Your task to perform on an android device: open app "The Home Depot" (install if not already installed), go to login, and select forgot password Image 0: 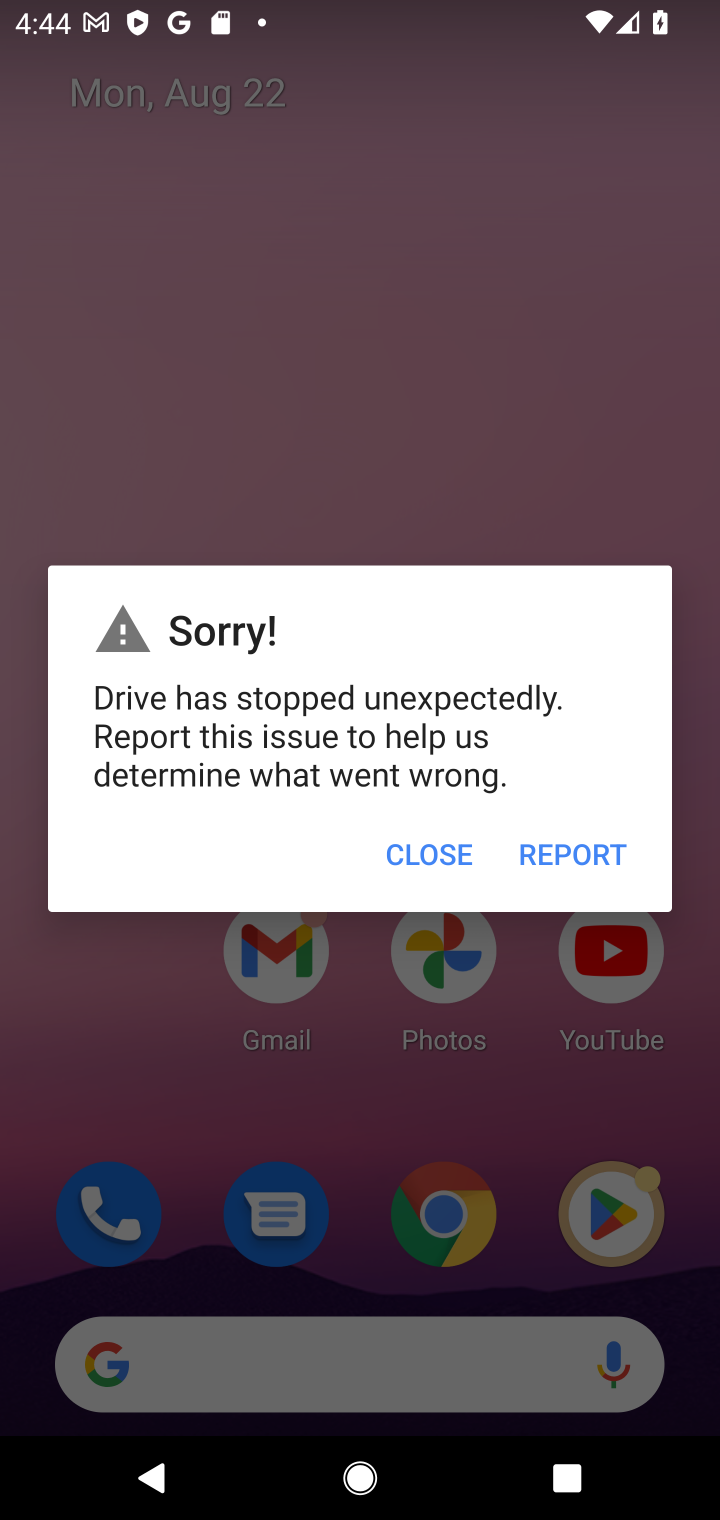
Step 0: press home button
Your task to perform on an android device: open app "The Home Depot" (install if not already installed), go to login, and select forgot password Image 1: 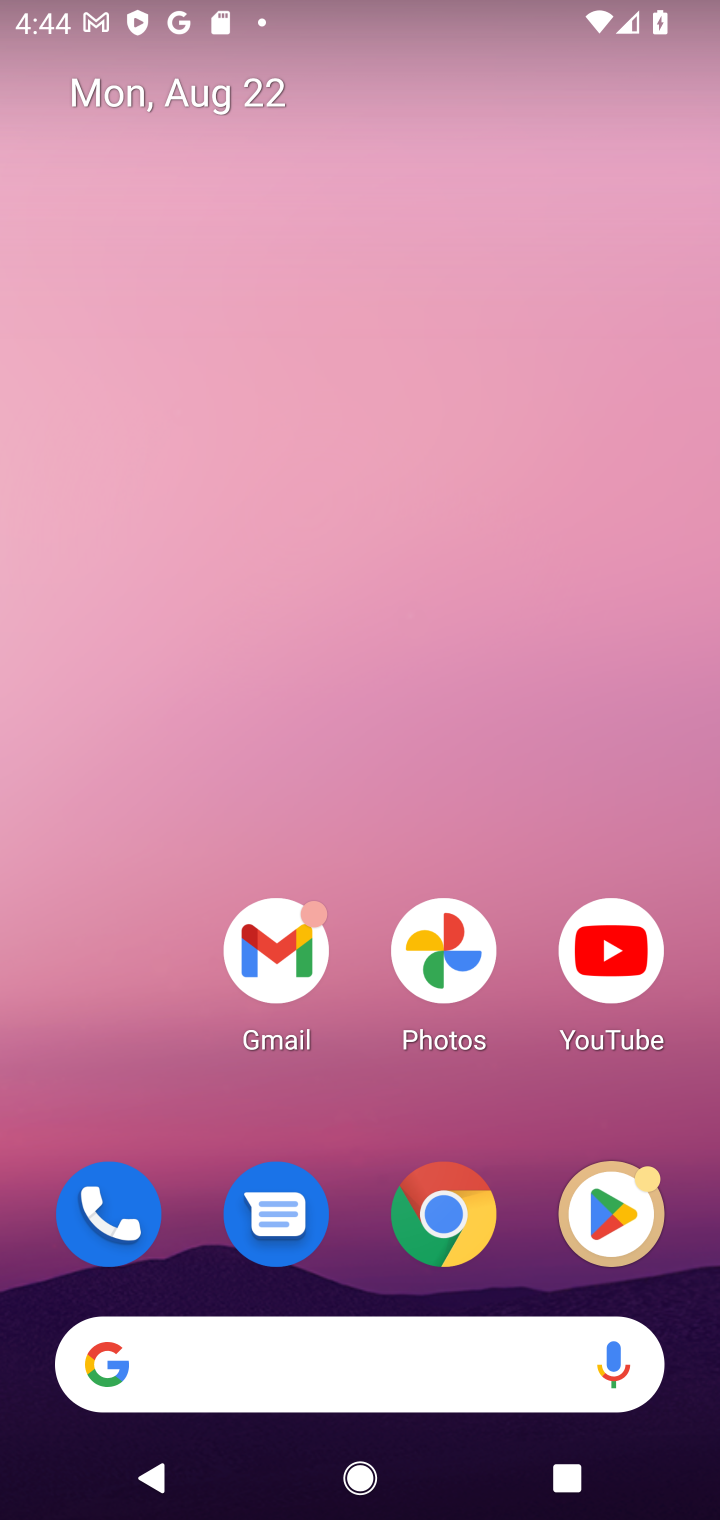
Step 1: click (621, 1212)
Your task to perform on an android device: open app "The Home Depot" (install if not already installed), go to login, and select forgot password Image 2: 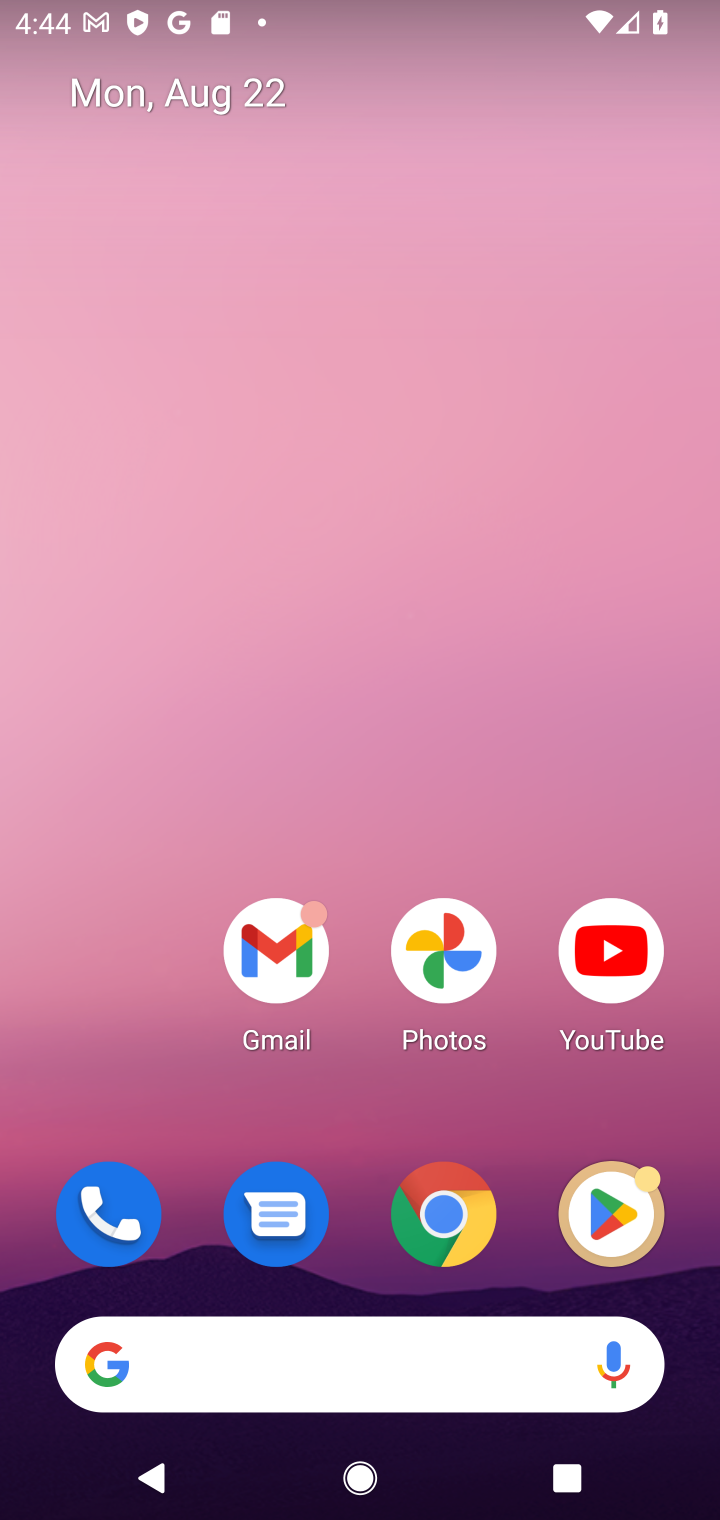
Step 2: click (605, 1215)
Your task to perform on an android device: open app "The Home Depot" (install if not already installed), go to login, and select forgot password Image 3: 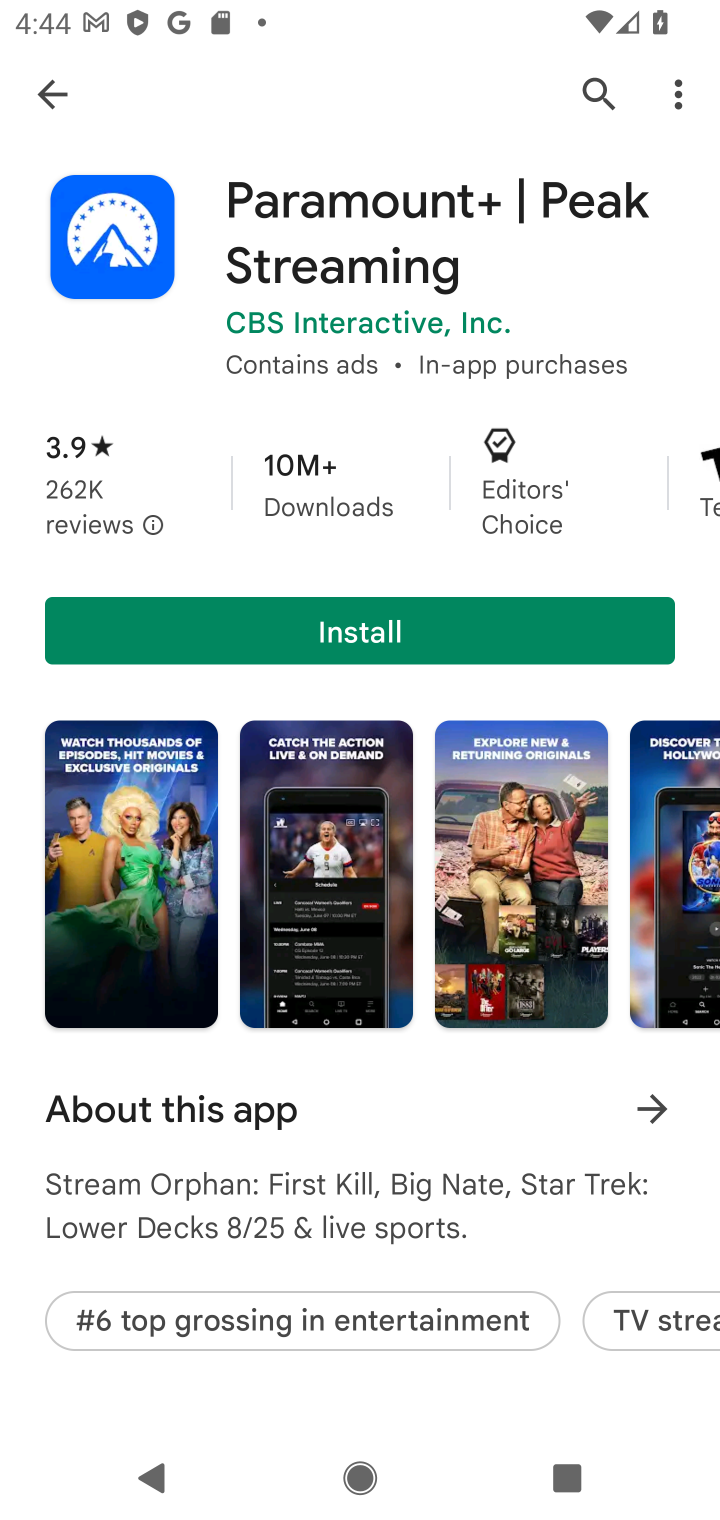
Step 3: click (593, 95)
Your task to perform on an android device: open app "The Home Depot" (install if not already installed), go to login, and select forgot password Image 4: 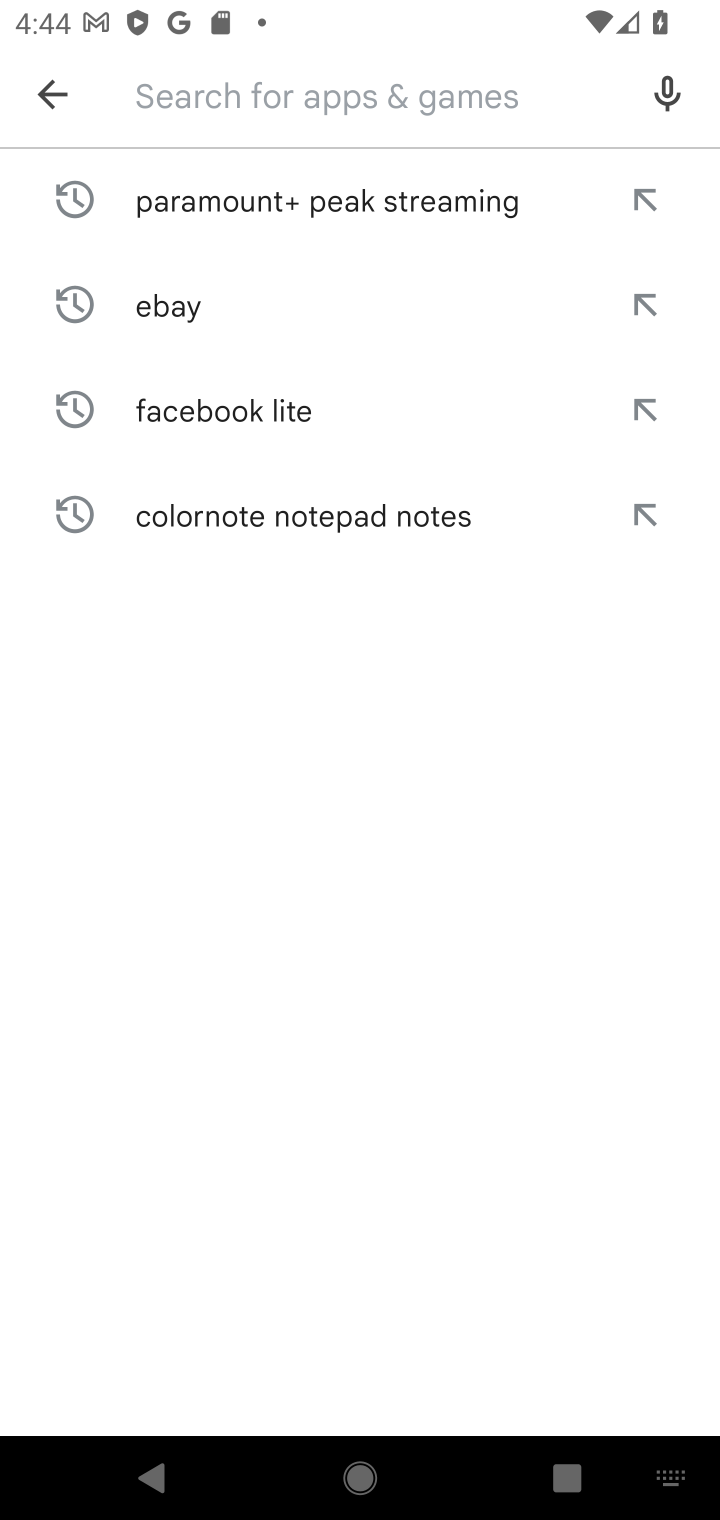
Step 4: type "the home depot"
Your task to perform on an android device: open app "The Home Depot" (install if not already installed), go to login, and select forgot password Image 5: 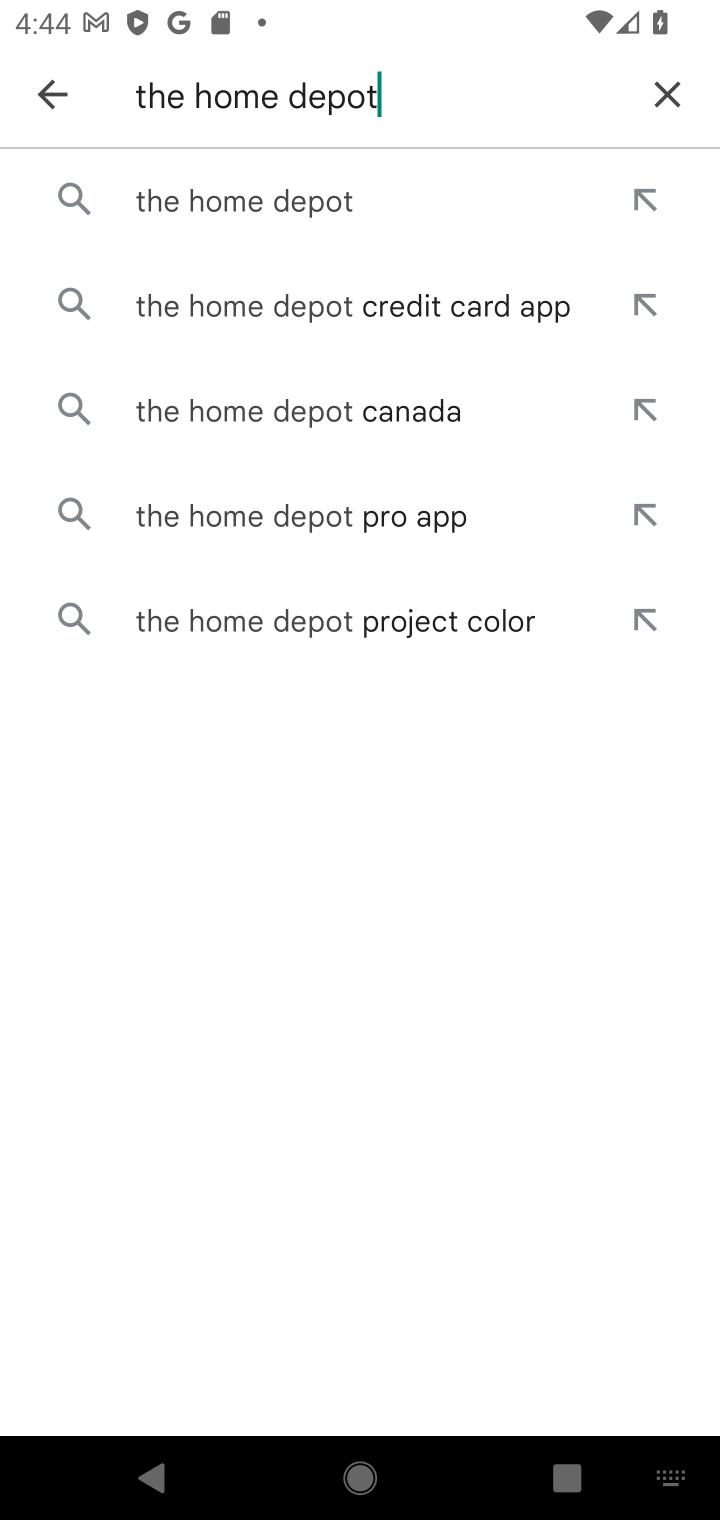
Step 5: click (234, 208)
Your task to perform on an android device: open app "The Home Depot" (install if not already installed), go to login, and select forgot password Image 6: 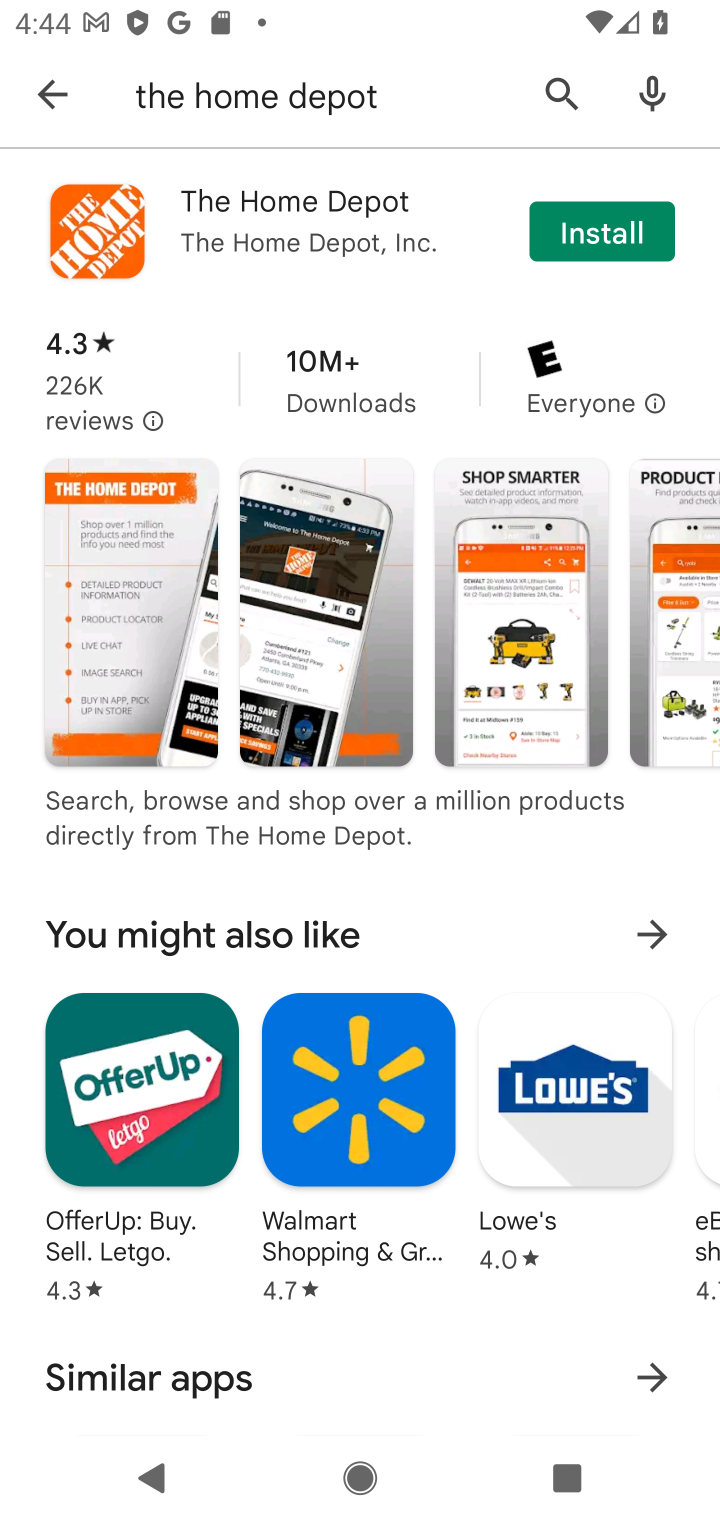
Step 6: click (586, 225)
Your task to perform on an android device: open app "The Home Depot" (install if not already installed), go to login, and select forgot password Image 7: 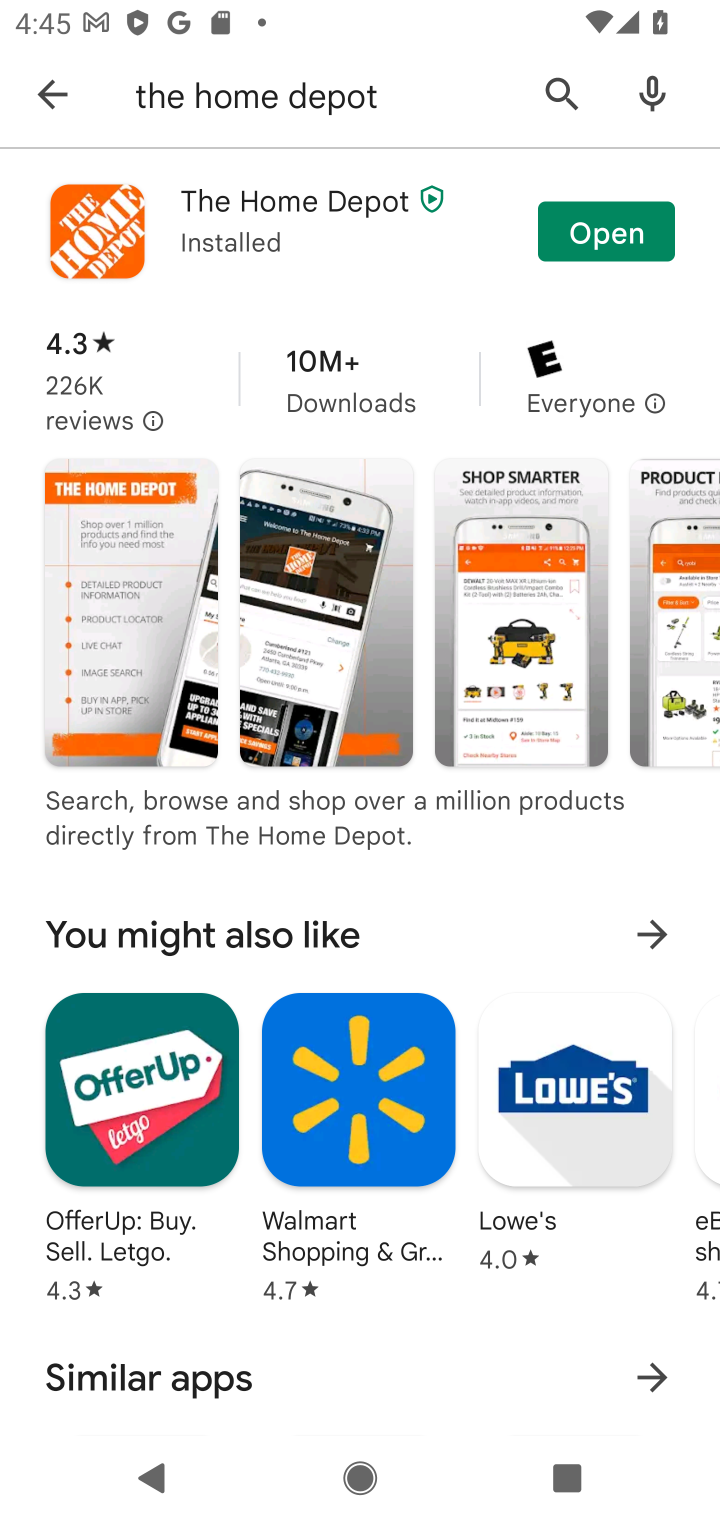
Step 7: click (591, 222)
Your task to perform on an android device: open app "The Home Depot" (install if not already installed), go to login, and select forgot password Image 8: 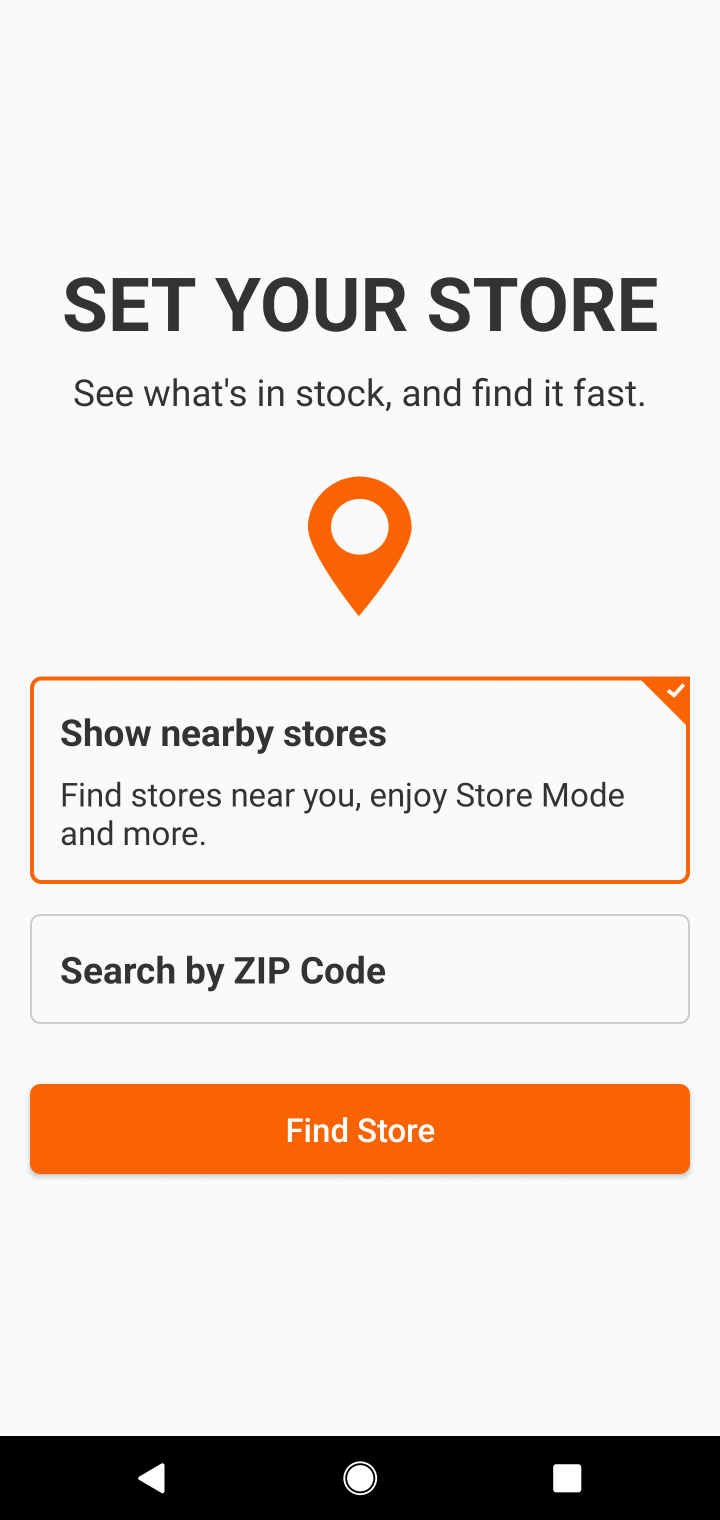
Step 8: click (333, 1128)
Your task to perform on an android device: open app "The Home Depot" (install if not already installed), go to login, and select forgot password Image 9: 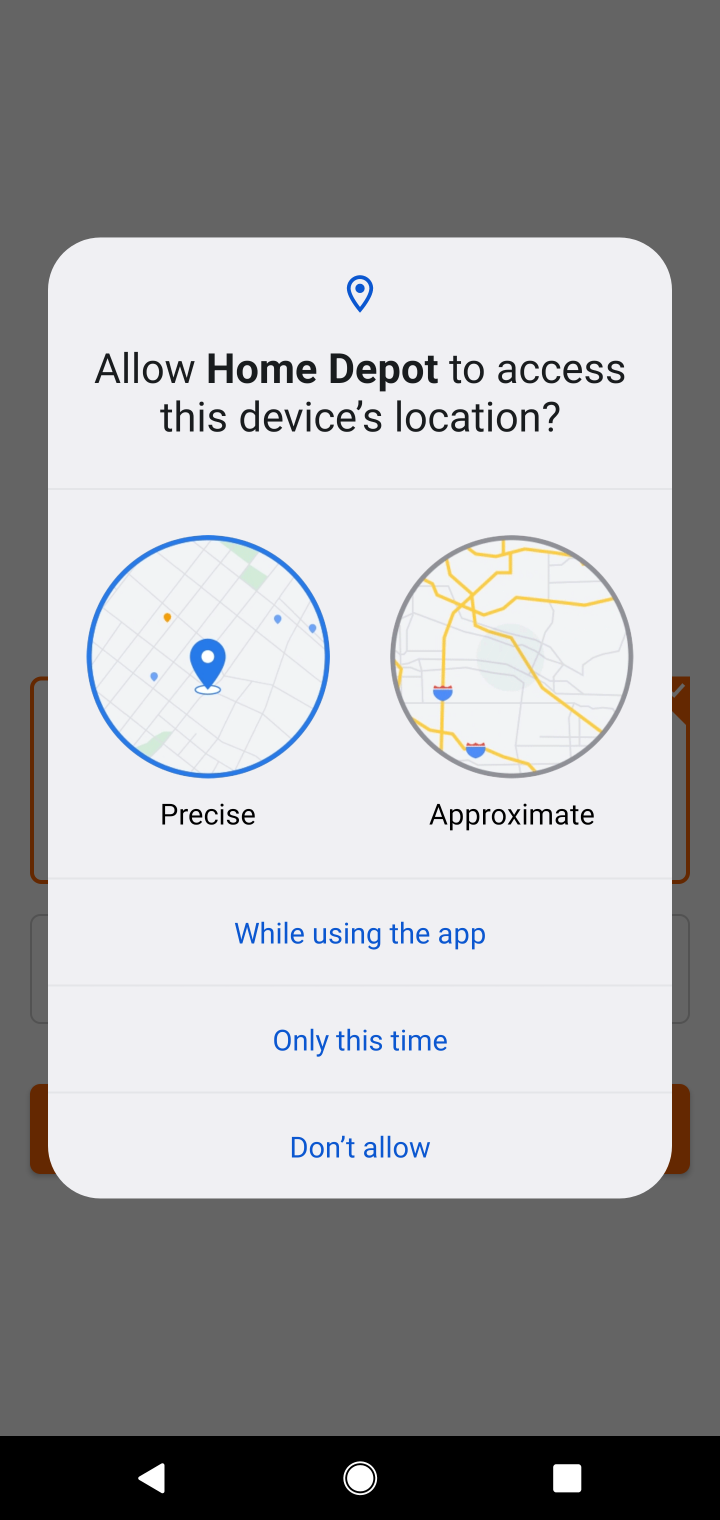
Step 9: click (309, 945)
Your task to perform on an android device: open app "The Home Depot" (install if not already installed), go to login, and select forgot password Image 10: 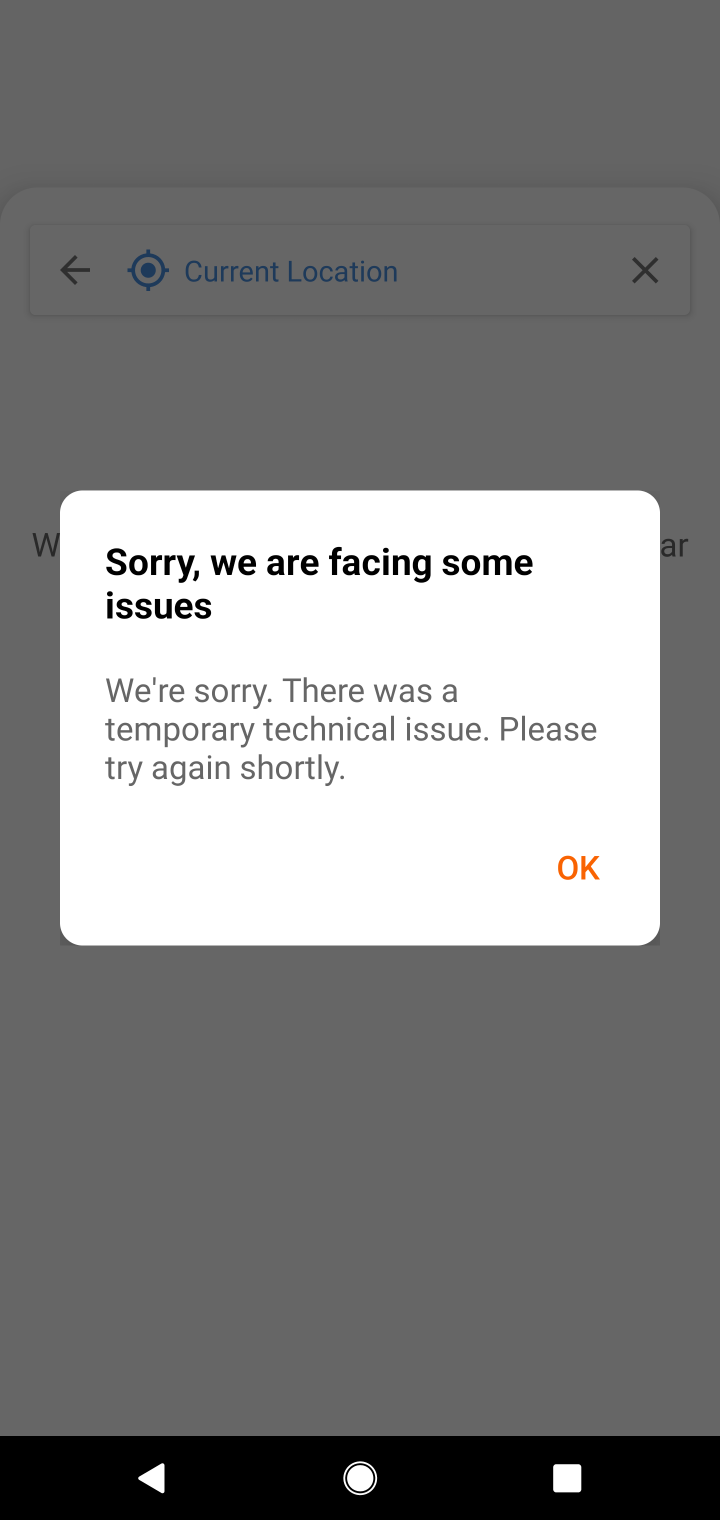
Step 10: click (568, 859)
Your task to perform on an android device: open app "The Home Depot" (install if not already installed), go to login, and select forgot password Image 11: 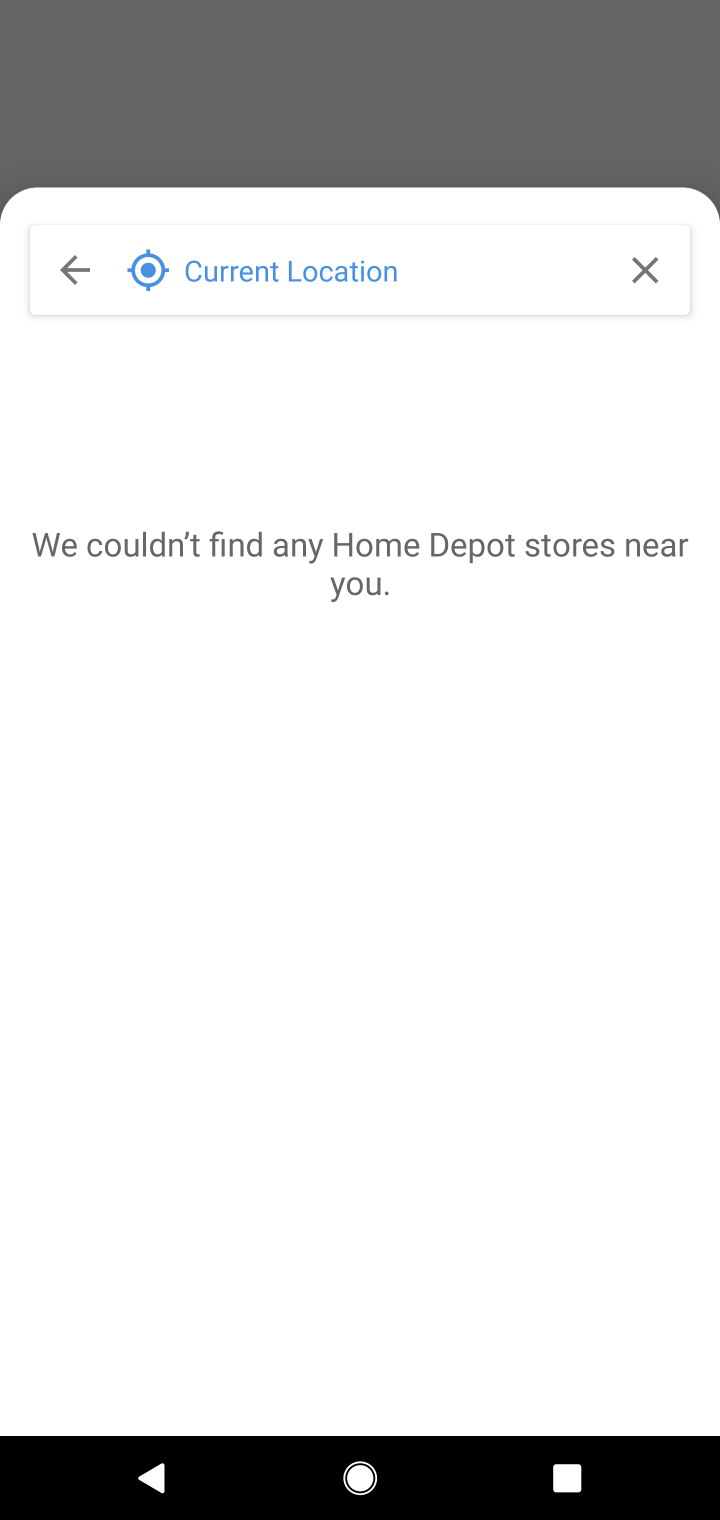
Step 11: task complete